Your task to perform on an android device: choose inbox layout in the gmail app Image 0: 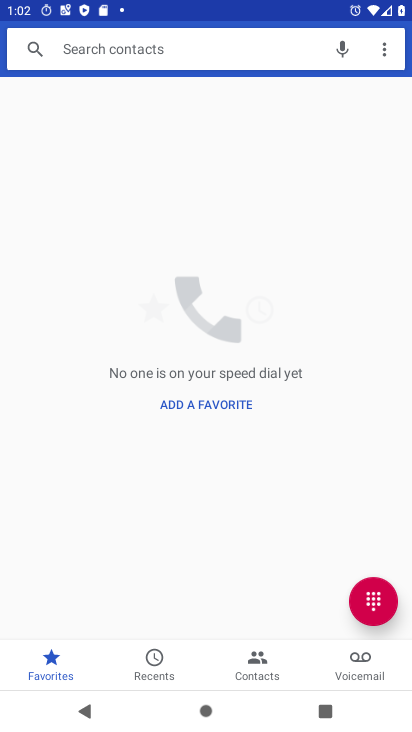
Step 0: drag from (222, 615) to (221, 134)
Your task to perform on an android device: choose inbox layout in the gmail app Image 1: 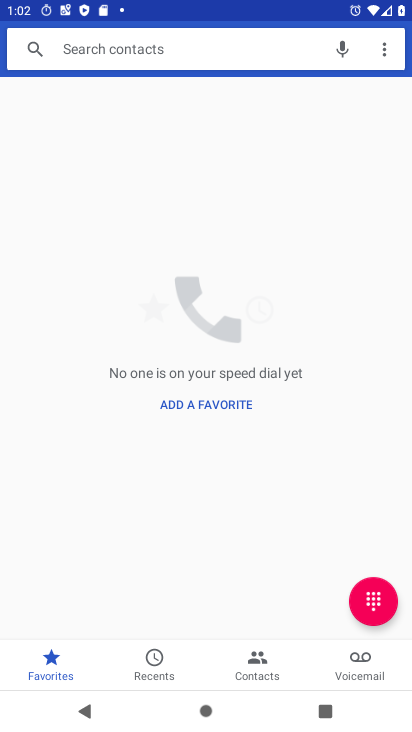
Step 1: press home button
Your task to perform on an android device: choose inbox layout in the gmail app Image 2: 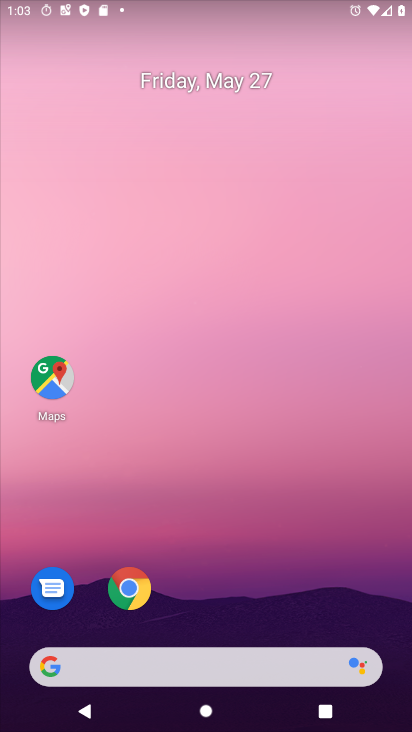
Step 2: drag from (195, 254) to (195, 163)
Your task to perform on an android device: choose inbox layout in the gmail app Image 3: 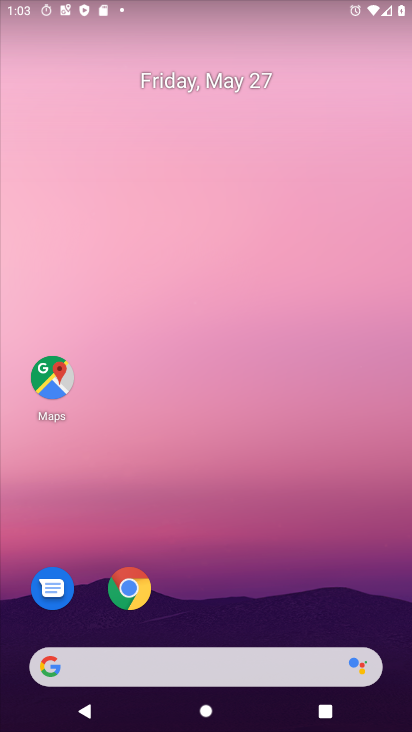
Step 3: drag from (188, 628) to (204, 170)
Your task to perform on an android device: choose inbox layout in the gmail app Image 4: 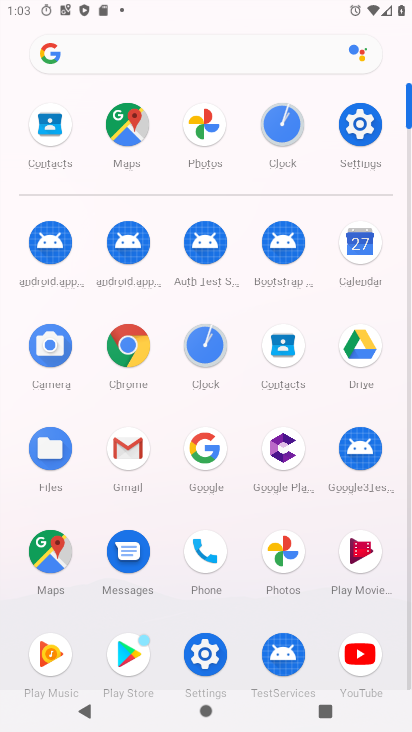
Step 4: click (128, 443)
Your task to perform on an android device: choose inbox layout in the gmail app Image 5: 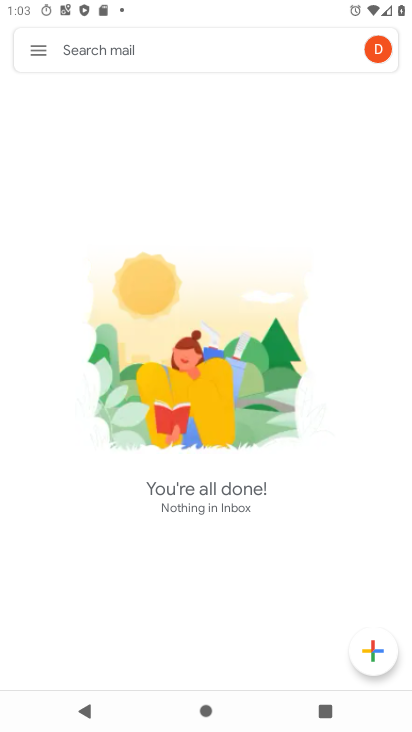
Step 5: click (34, 49)
Your task to perform on an android device: choose inbox layout in the gmail app Image 6: 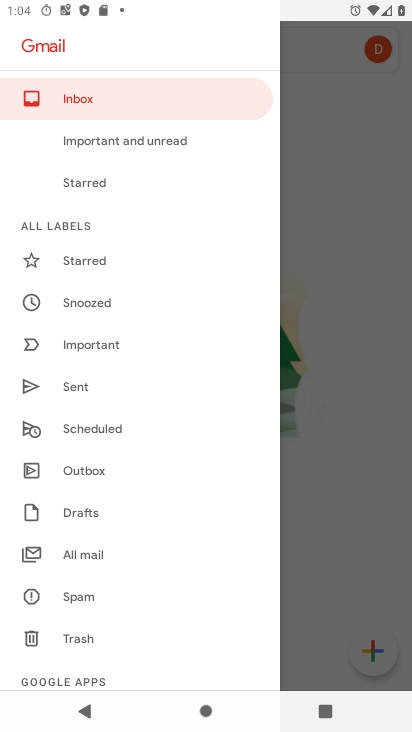
Step 6: drag from (137, 637) to (133, 191)
Your task to perform on an android device: choose inbox layout in the gmail app Image 7: 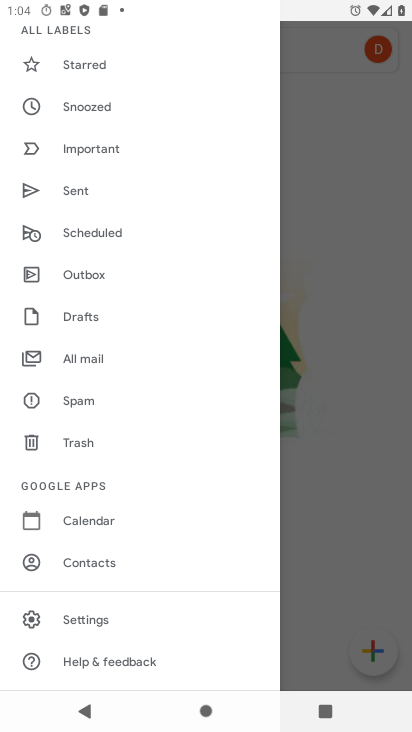
Step 7: click (122, 614)
Your task to perform on an android device: choose inbox layout in the gmail app Image 8: 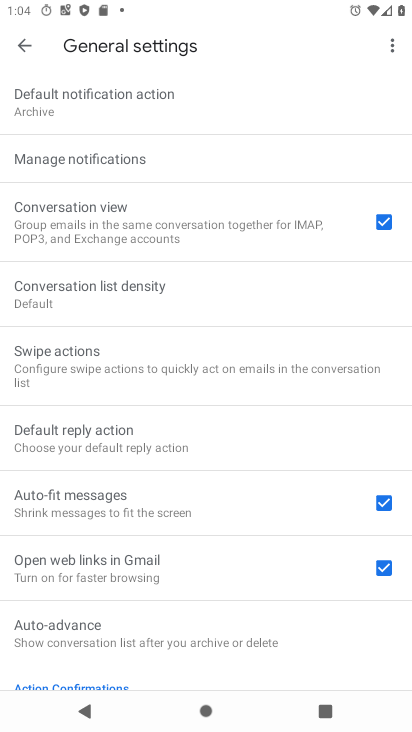
Step 8: drag from (193, 673) to (183, 186)
Your task to perform on an android device: choose inbox layout in the gmail app Image 9: 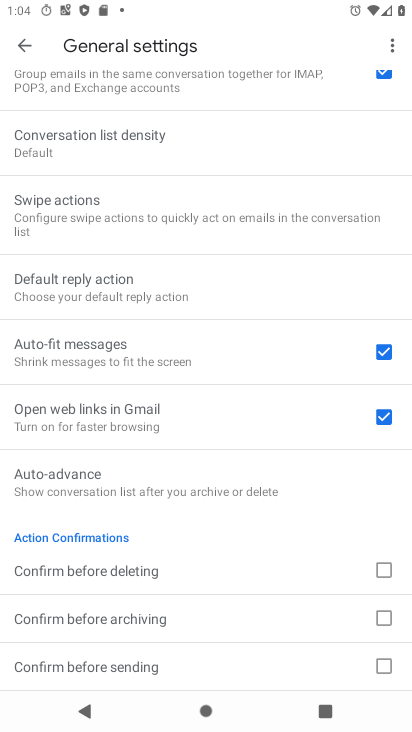
Step 9: click (29, 40)
Your task to perform on an android device: choose inbox layout in the gmail app Image 10: 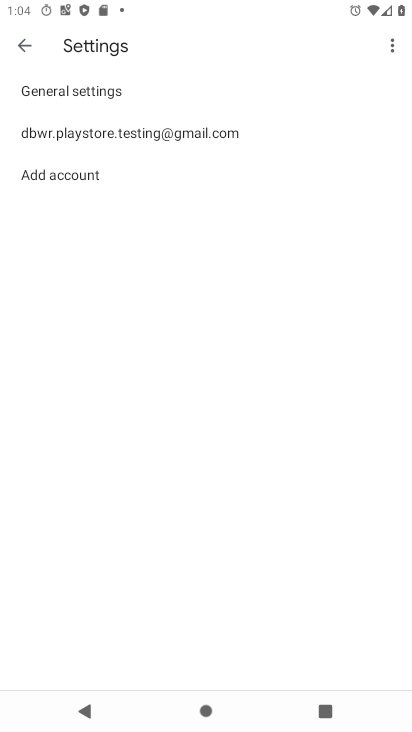
Step 10: click (136, 126)
Your task to perform on an android device: choose inbox layout in the gmail app Image 11: 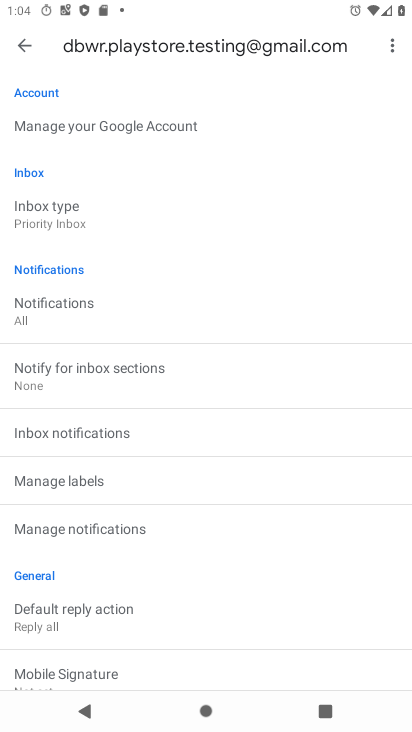
Step 11: click (84, 216)
Your task to perform on an android device: choose inbox layout in the gmail app Image 12: 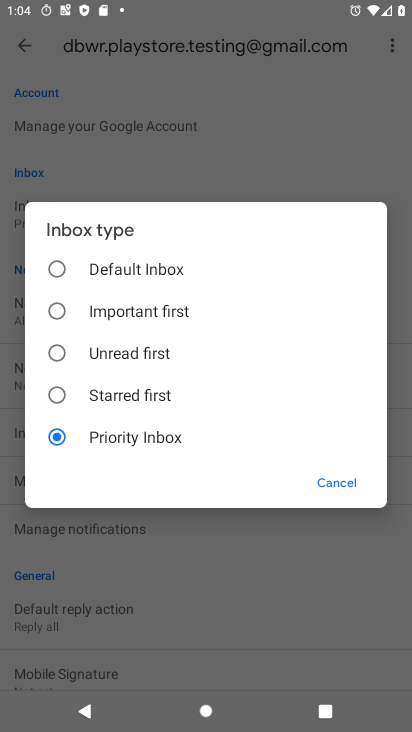
Step 12: click (50, 268)
Your task to perform on an android device: choose inbox layout in the gmail app Image 13: 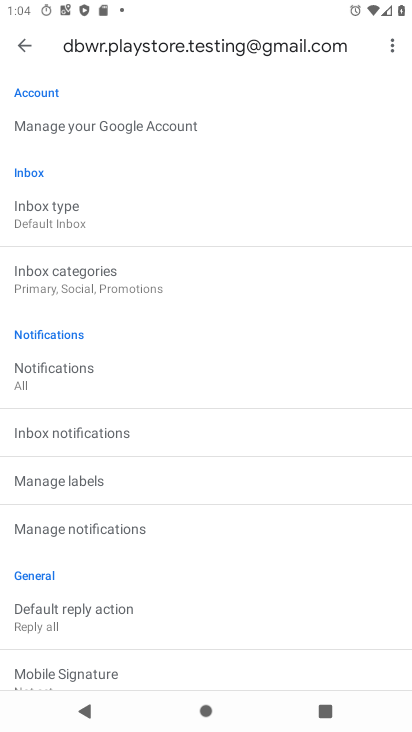
Step 13: task complete